Your task to perform on an android device: turn on javascript in the chrome app Image 0: 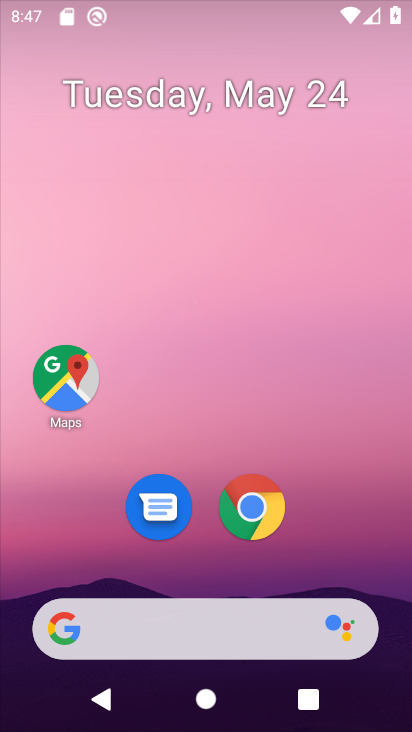
Step 0: drag from (197, 559) to (266, 202)
Your task to perform on an android device: turn on javascript in the chrome app Image 1: 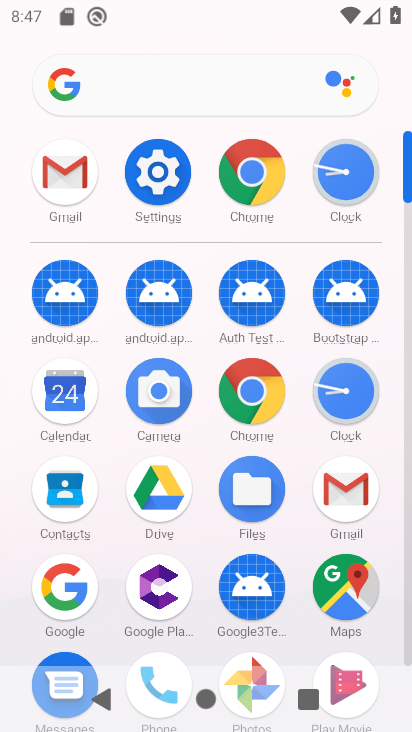
Step 1: click (262, 162)
Your task to perform on an android device: turn on javascript in the chrome app Image 2: 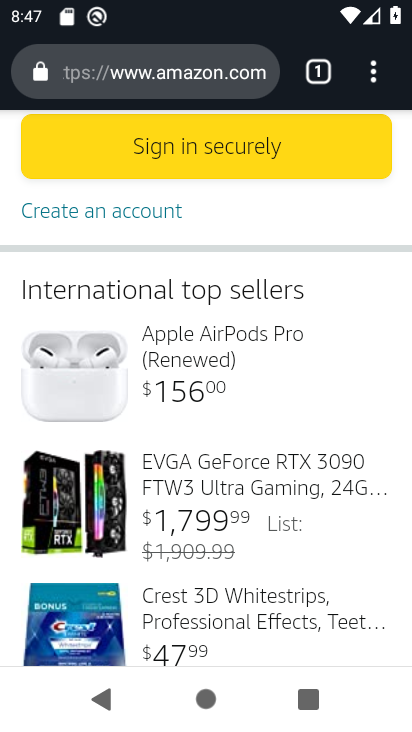
Step 2: click (372, 65)
Your task to perform on an android device: turn on javascript in the chrome app Image 3: 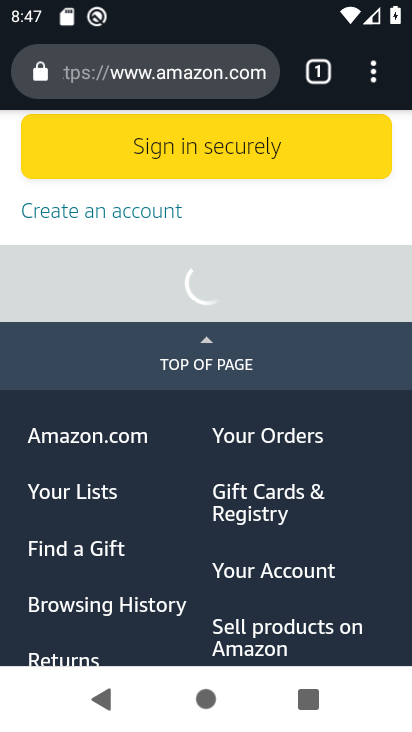
Step 3: click (373, 79)
Your task to perform on an android device: turn on javascript in the chrome app Image 4: 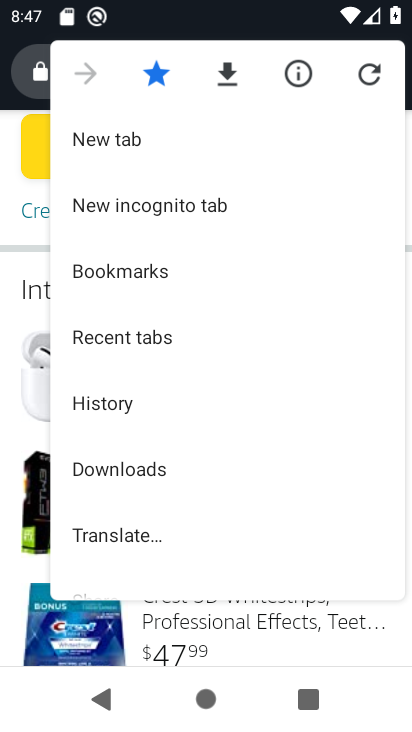
Step 4: drag from (202, 476) to (278, 206)
Your task to perform on an android device: turn on javascript in the chrome app Image 5: 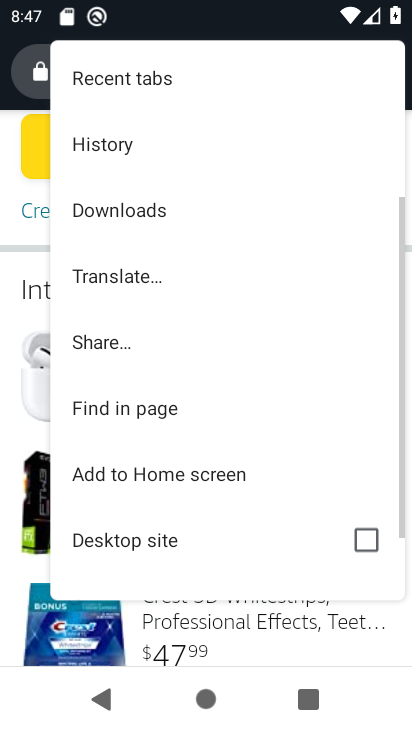
Step 5: drag from (195, 510) to (341, 140)
Your task to perform on an android device: turn on javascript in the chrome app Image 6: 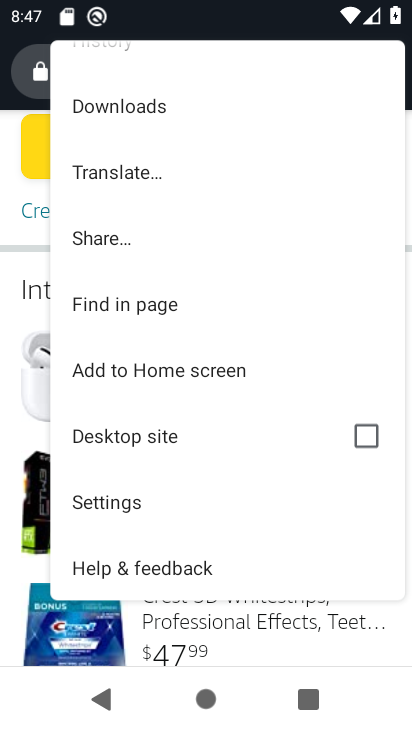
Step 6: click (115, 502)
Your task to perform on an android device: turn on javascript in the chrome app Image 7: 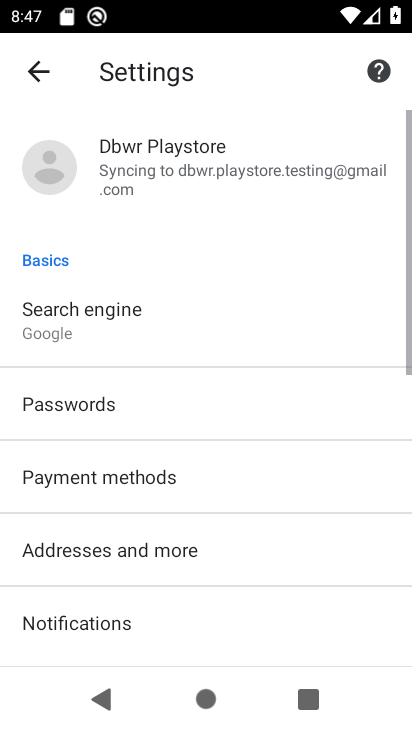
Step 7: drag from (282, 572) to (379, 107)
Your task to perform on an android device: turn on javascript in the chrome app Image 8: 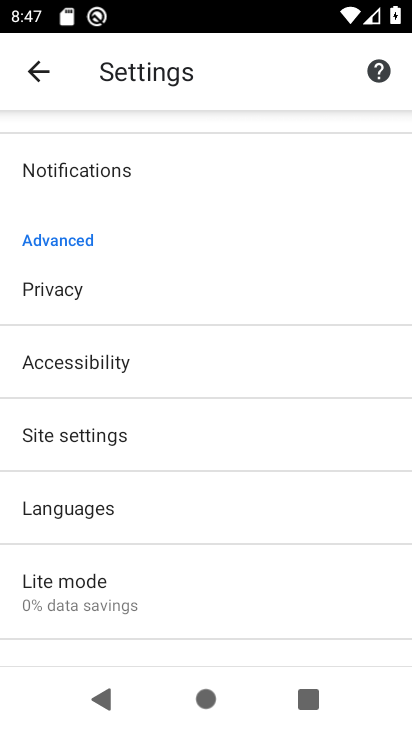
Step 8: click (145, 436)
Your task to perform on an android device: turn on javascript in the chrome app Image 9: 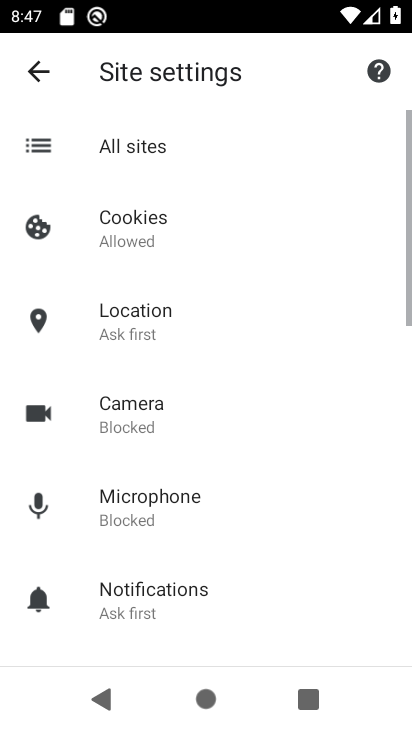
Step 9: drag from (215, 518) to (312, 235)
Your task to perform on an android device: turn on javascript in the chrome app Image 10: 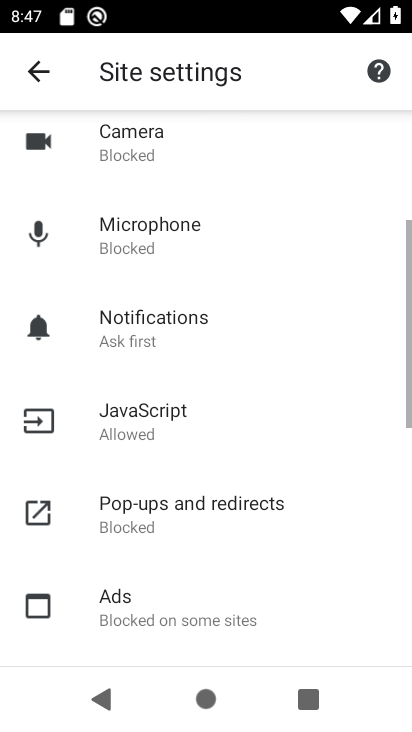
Step 10: click (163, 428)
Your task to perform on an android device: turn on javascript in the chrome app Image 11: 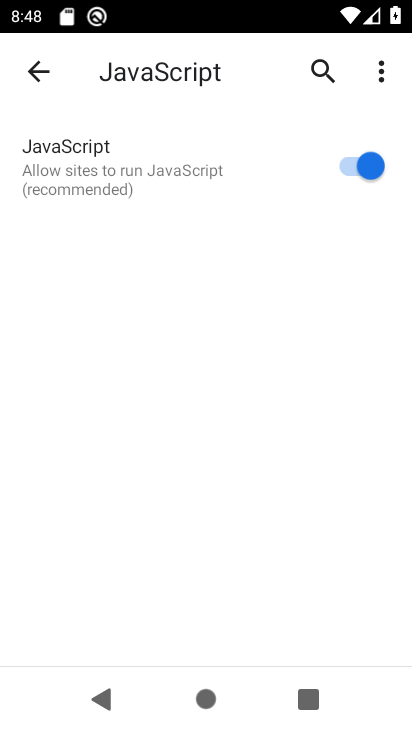
Step 11: task complete